Your task to perform on an android device: turn on location history Image 0: 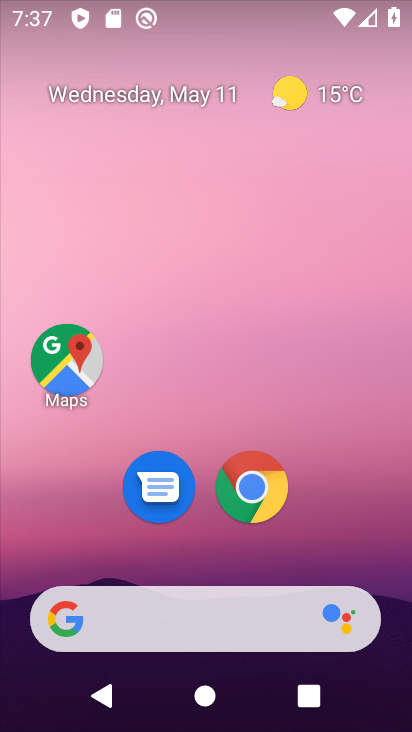
Step 0: drag from (267, 633) to (245, 132)
Your task to perform on an android device: turn on location history Image 1: 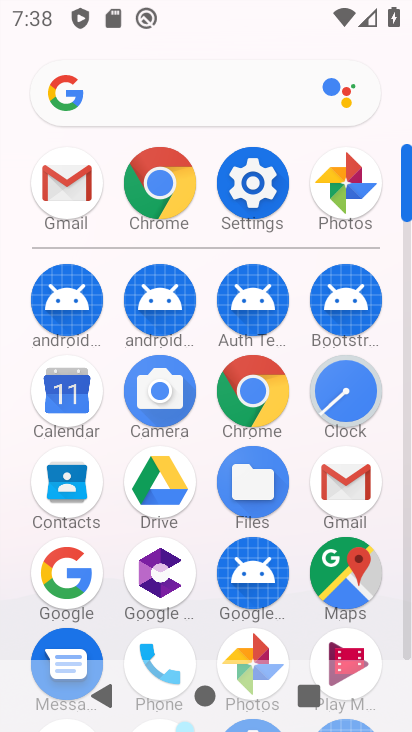
Step 1: click (246, 167)
Your task to perform on an android device: turn on location history Image 2: 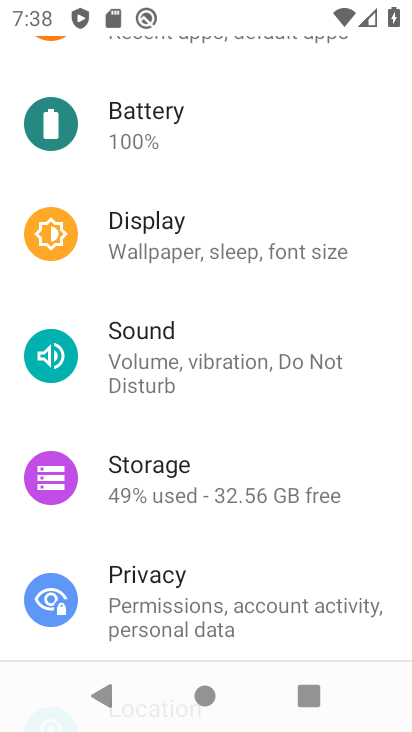
Step 2: drag from (239, 527) to (213, 365)
Your task to perform on an android device: turn on location history Image 3: 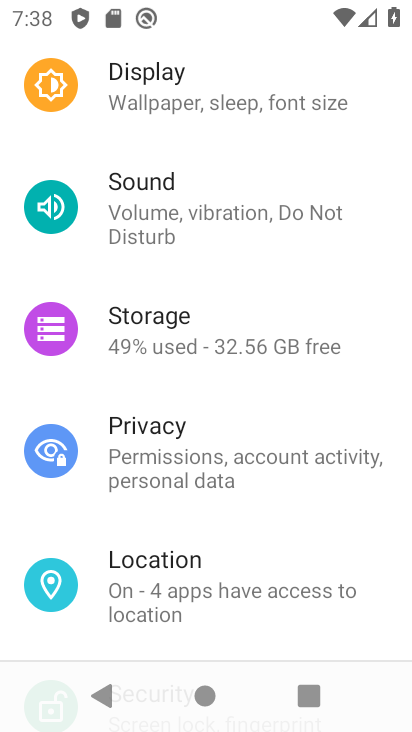
Step 3: click (222, 573)
Your task to perform on an android device: turn on location history Image 4: 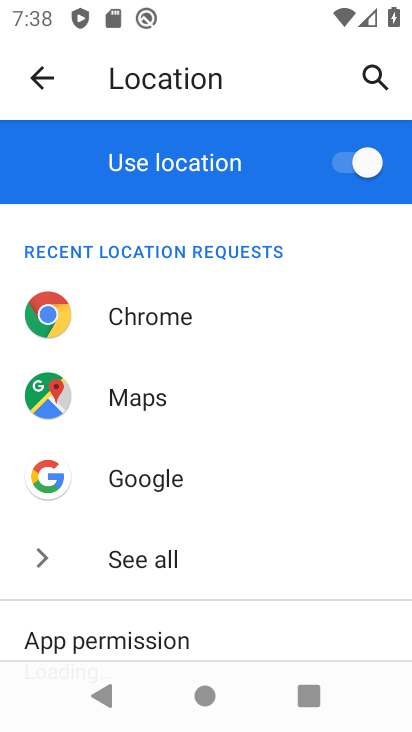
Step 4: drag from (266, 643) to (244, 375)
Your task to perform on an android device: turn on location history Image 5: 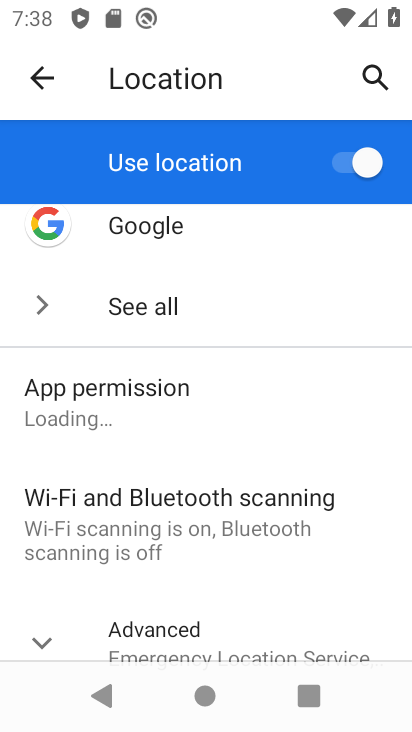
Step 5: click (148, 618)
Your task to perform on an android device: turn on location history Image 6: 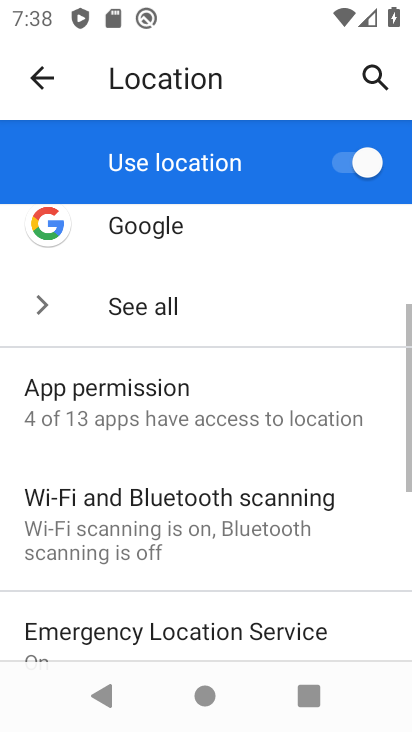
Step 6: drag from (187, 577) to (200, 349)
Your task to perform on an android device: turn on location history Image 7: 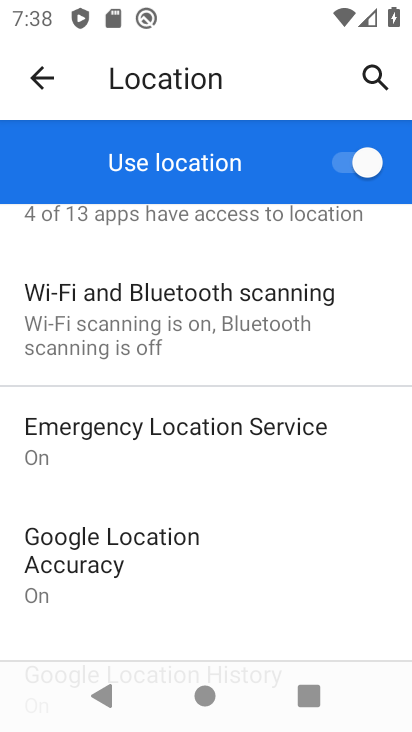
Step 7: drag from (164, 562) to (243, 383)
Your task to perform on an android device: turn on location history Image 8: 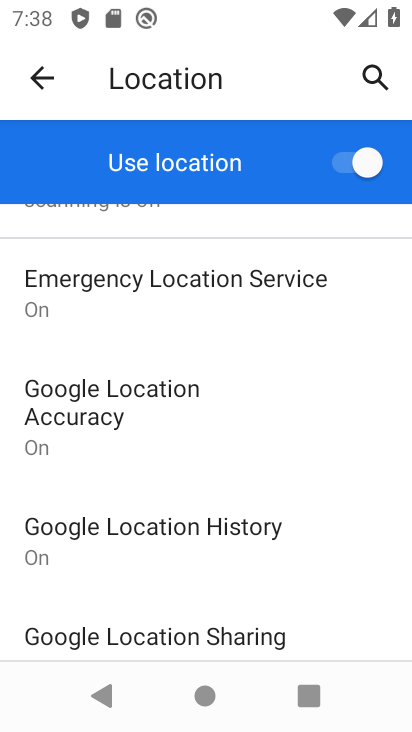
Step 8: click (180, 526)
Your task to perform on an android device: turn on location history Image 9: 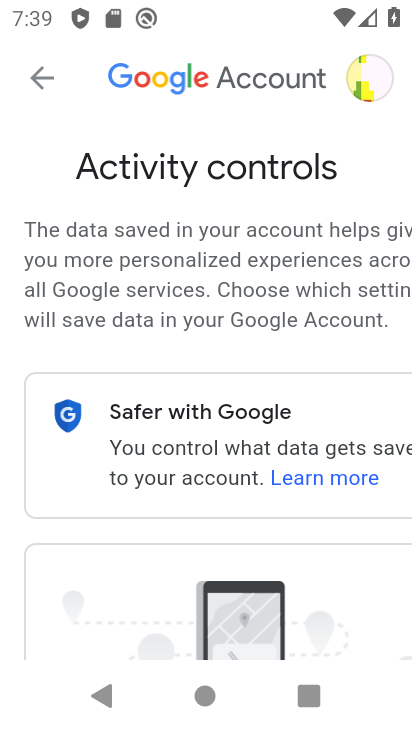
Step 9: drag from (178, 562) to (162, 277)
Your task to perform on an android device: turn on location history Image 10: 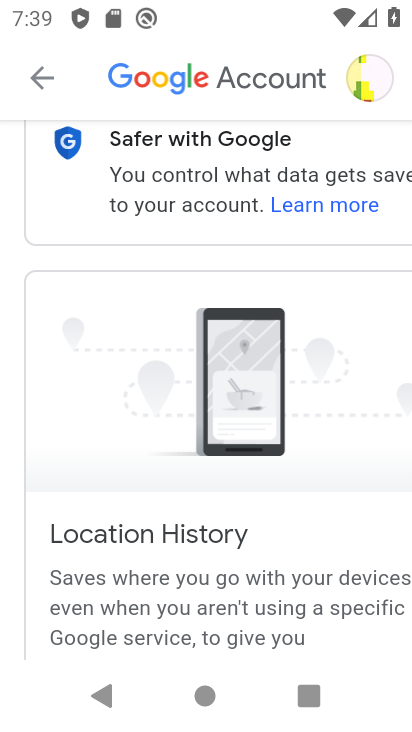
Step 10: drag from (207, 471) to (212, 391)
Your task to perform on an android device: turn on location history Image 11: 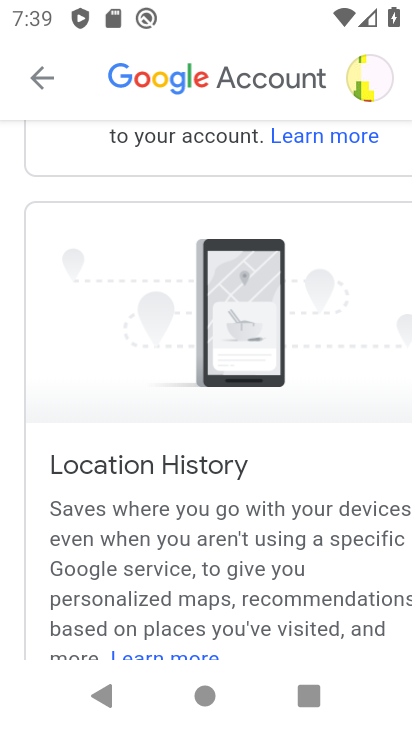
Step 11: drag from (249, 512) to (259, 324)
Your task to perform on an android device: turn on location history Image 12: 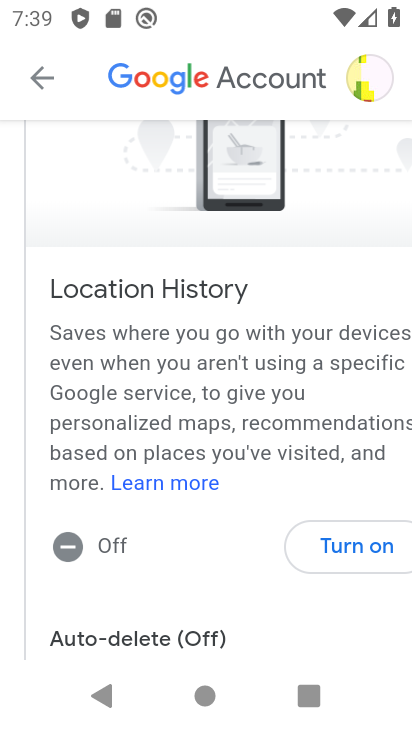
Step 12: click (348, 532)
Your task to perform on an android device: turn on location history Image 13: 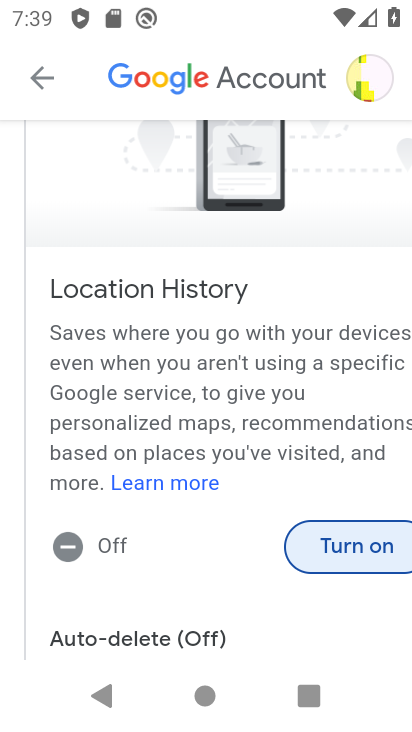
Step 13: task complete